Your task to perform on an android device: Open wifi settings Image 0: 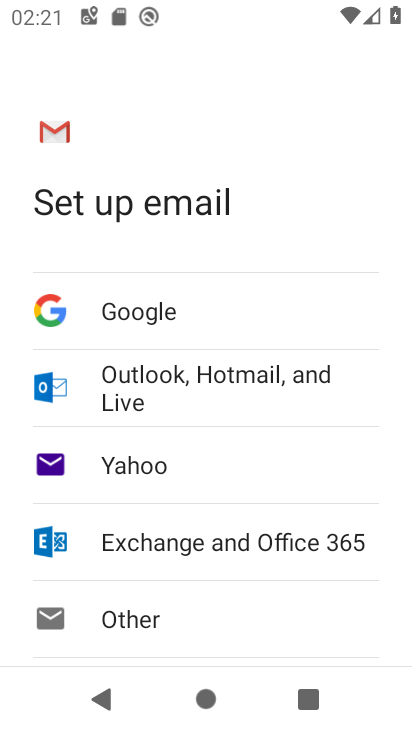
Step 0: press home button
Your task to perform on an android device: Open wifi settings Image 1: 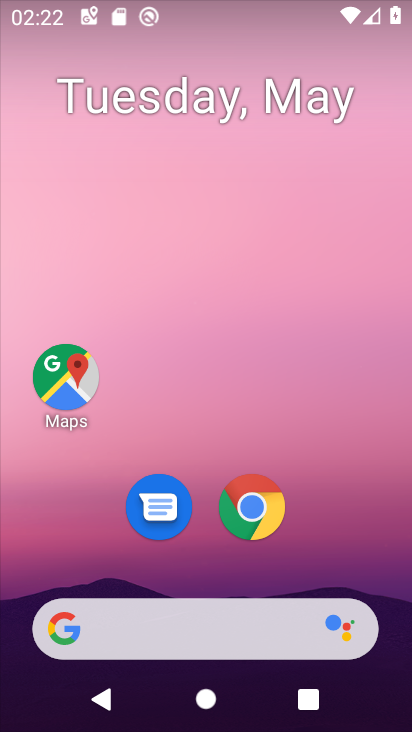
Step 1: drag from (204, 578) to (218, 264)
Your task to perform on an android device: Open wifi settings Image 2: 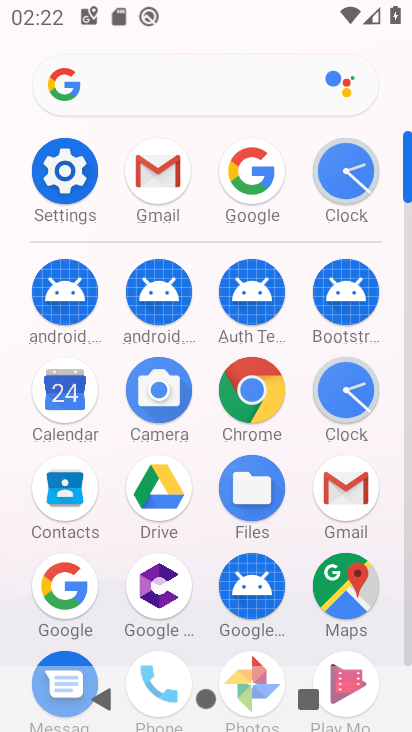
Step 2: click (70, 182)
Your task to perform on an android device: Open wifi settings Image 3: 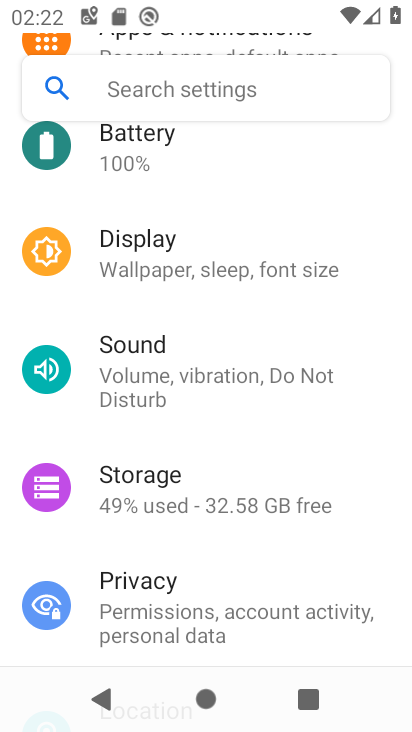
Step 3: drag from (190, 179) to (216, 524)
Your task to perform on an android device: Open wifi settings Image 4: 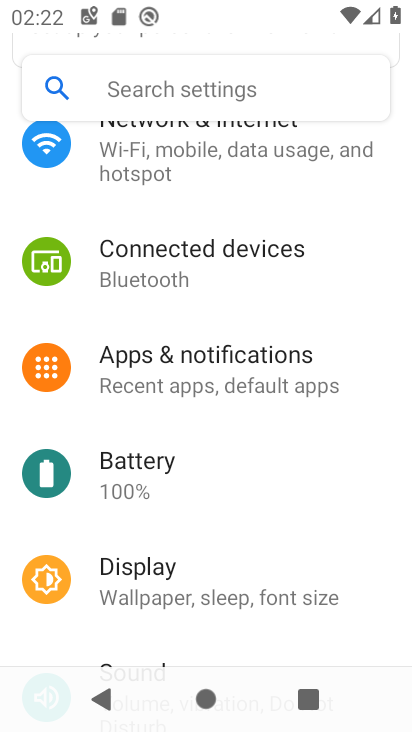
Step 4: drag from (222, 220) to (232, 400)
Your task to perform on an android device: Open wifi settings Image 5: 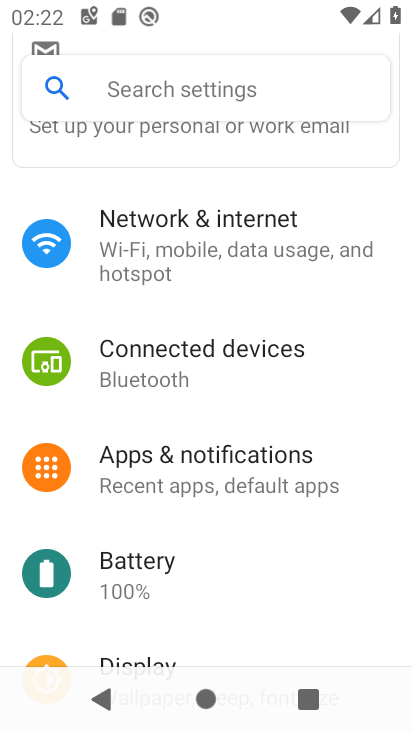
Step 5: click (205, 215)
Your task to perform on an android device: Open wifi settings Image 6: 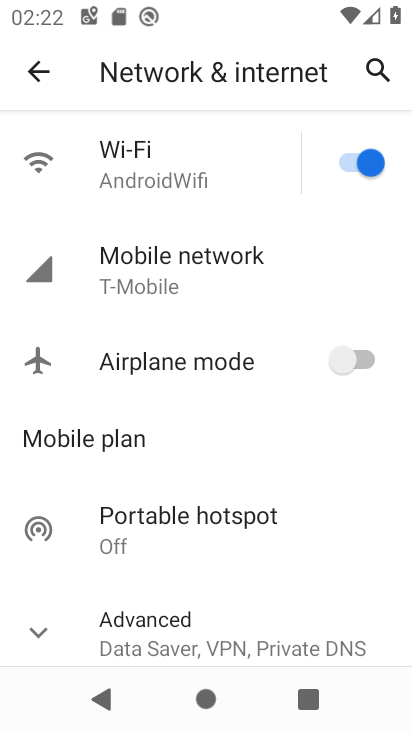
Step 6: click (128, 165)
Your task to perform on an android device: Open wifi settings Image 7: 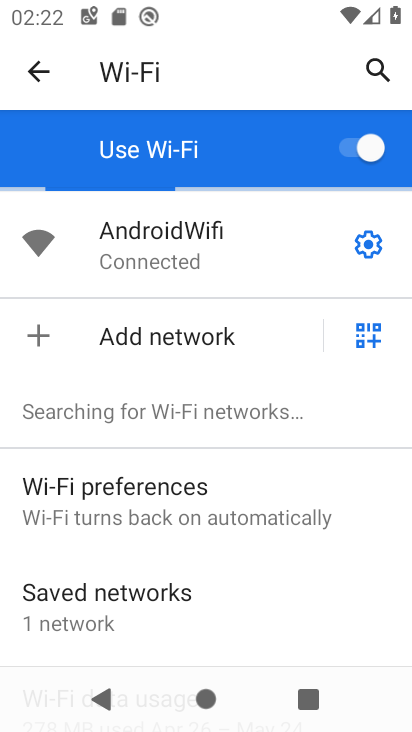
Step 7: task complete